Your task to perform on an android device: Open Google Maps Image 0: 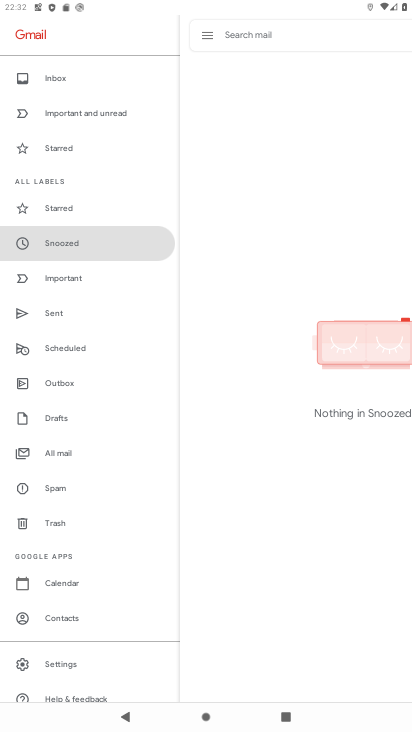
Step 0: press home button
Your task to perform on an android device: Open Google Maps Image 1: 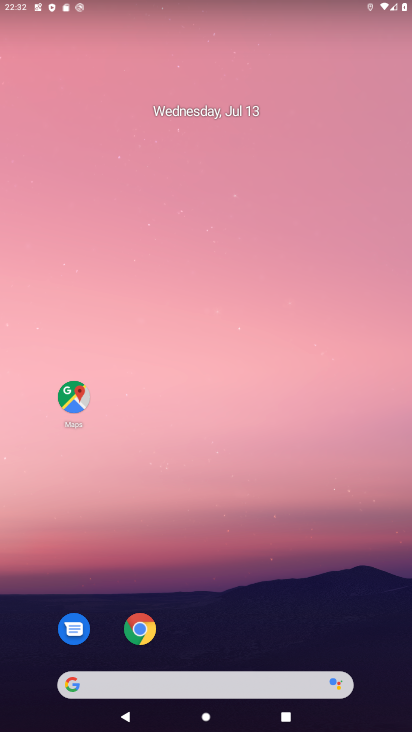
Step 1: click (74, 395)
Your task to perform on an android device: Open Google Maps Image 2: 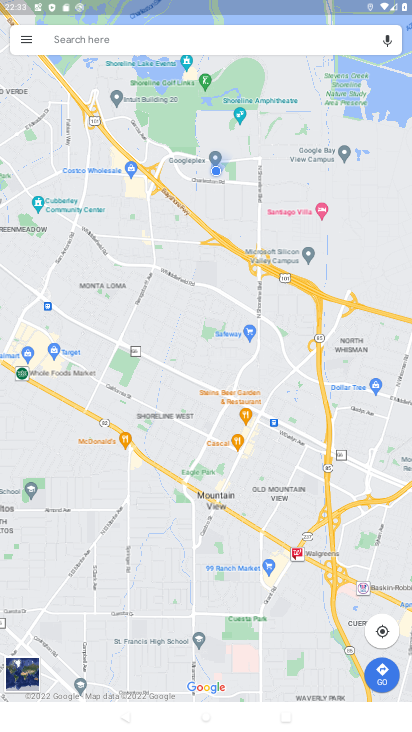
Step 2: task complete